Your task to perform on an android device: Open wifi settings Image 0: 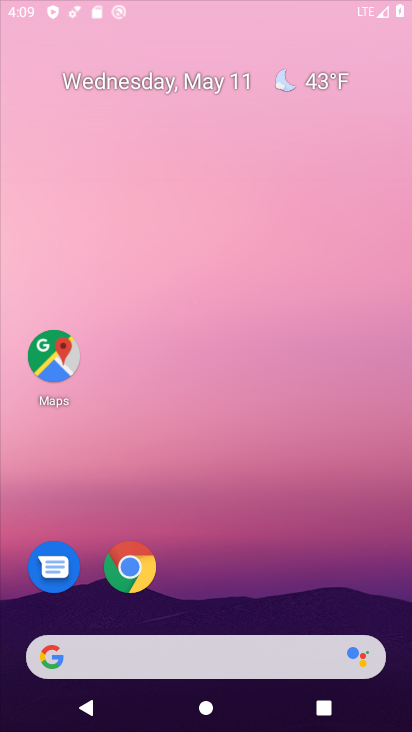
Step 0: click (150, 582)
Your task to perform on an android device: Open wifi settings Image 1: 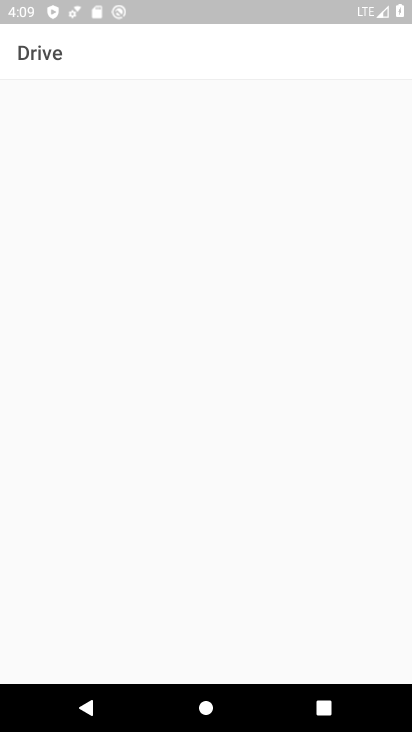
Step 1: press home button
Your task to perform on an android device: Open wifi settings Image 2: 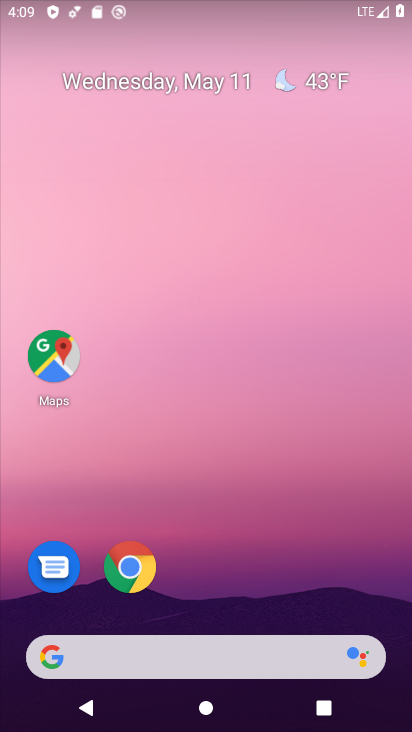
Step 2: drag from (235, 538) to (300, 105)
Your task to perform on an android device: Open wifi settings Image 3: 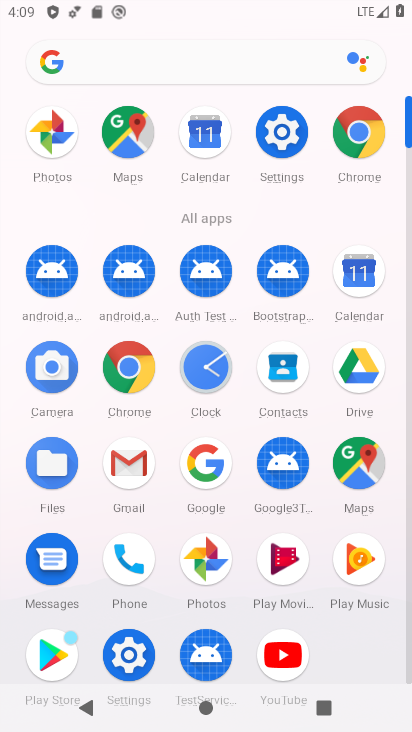
Step 3: click (285, 141)
Your task to perform on an android device: Open wifi settings Image 4: 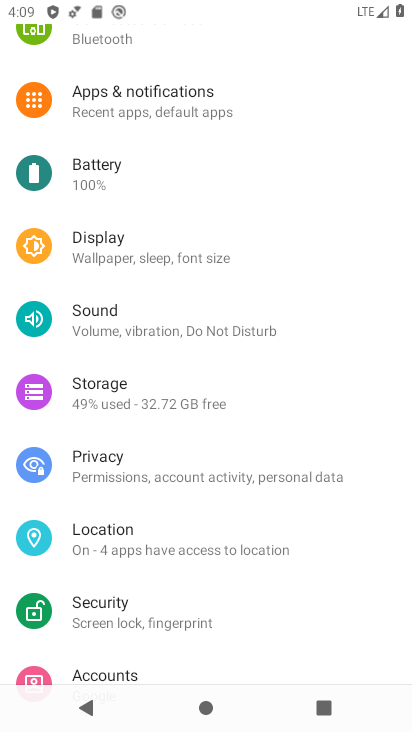
Step 4: drag from (294, 177) to (198, 556)
Your task to perform on an android device: Open wifi settings Image 5: 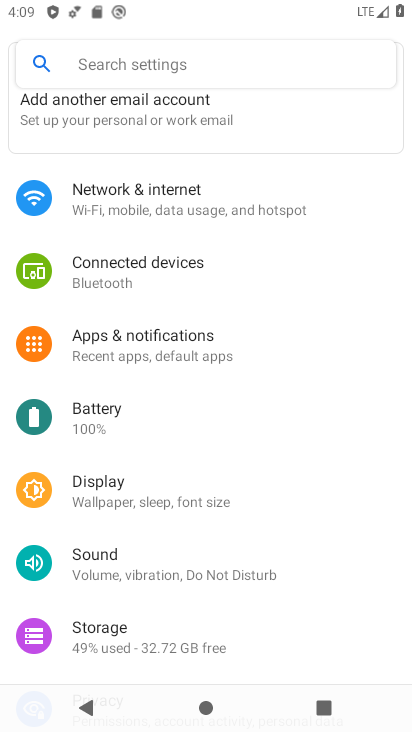
Step 5: click (148, 209)
Your task to perform on an android device: Open wifi settings Image 6: 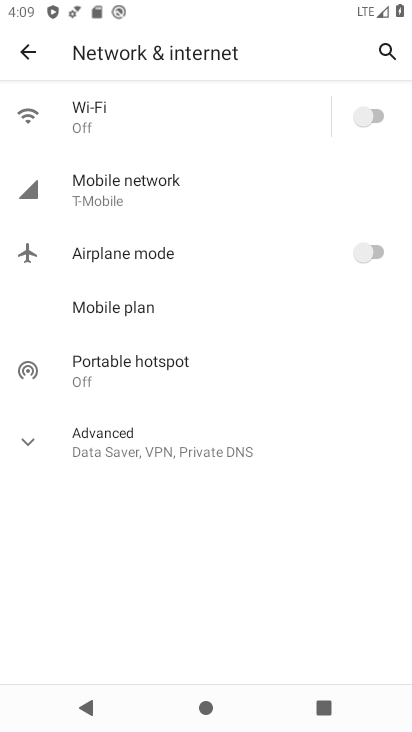
Step 6: click (221, 138)
Your task to perform on an android device: Open wifi settings Image 7: 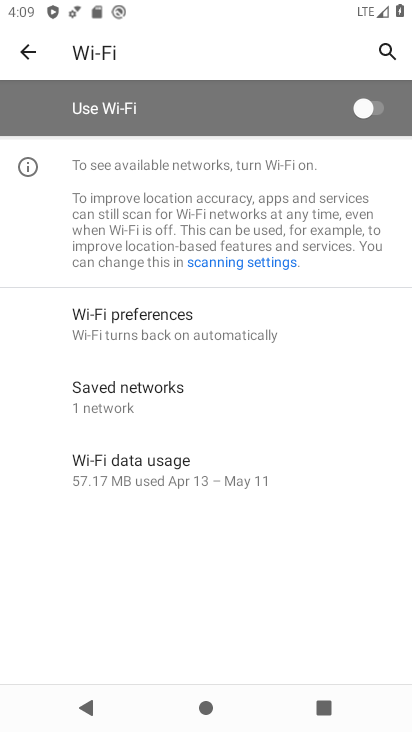
Step 7: click (365, 106)
Your task to perform on an android device: Open wifi settings Image 8: 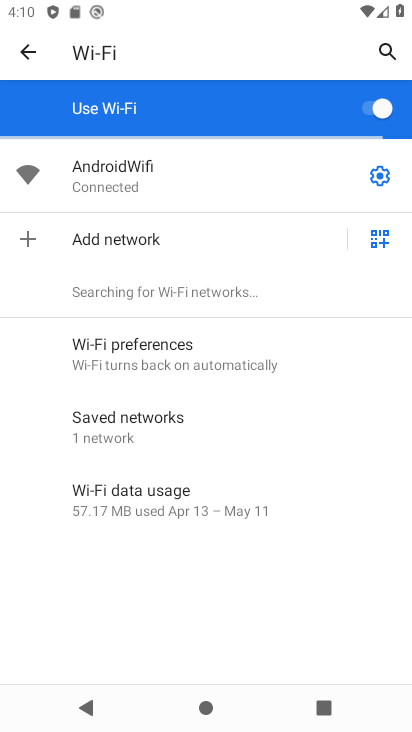
Step 8: click (372, 171)
Your task to perform on an android device: Open wifi settings Image 9: 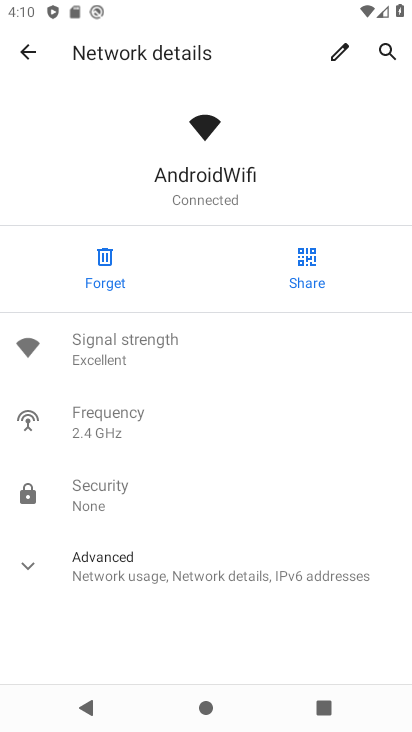
Step 9: task complete